Your task to perform on an android device: Set the phone to "Do not disturb". Image 0: 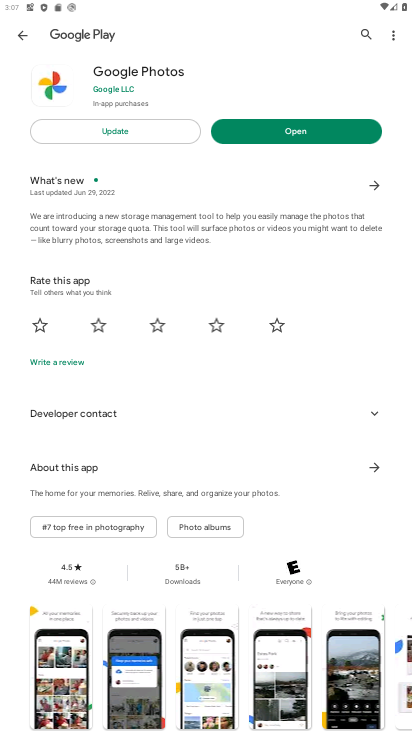
Step 0: press home button
Your task to perform on an android device: Set the phone to "Do not disturb". Image 1: 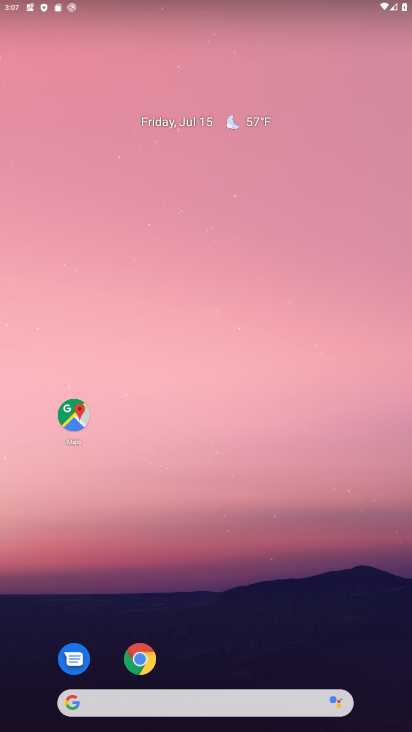
Step 1: drag from (214, 635) to (230, 0)
Your task to perform on an android device: Set the phone to "Do not disturb". Image 2: 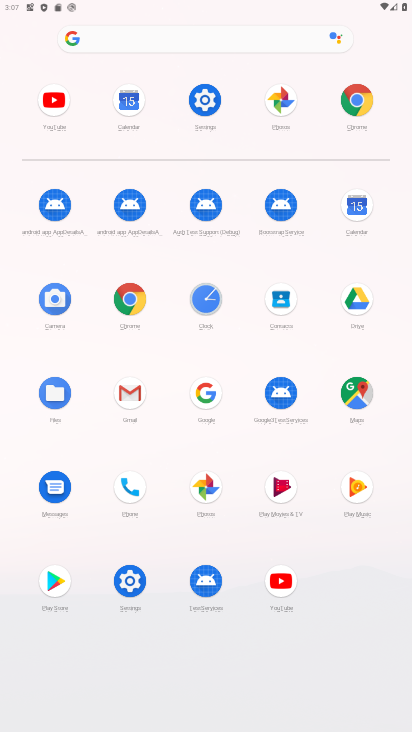
Step 2: click (132, 593)
Your task to perform on an android device: Set the phone to "Do not disturb". Image 3: 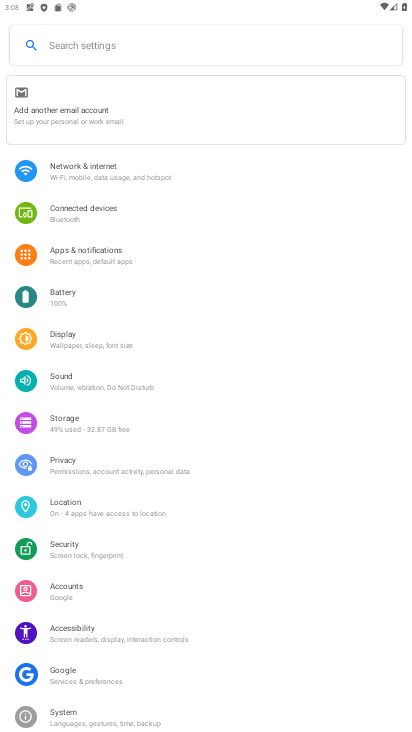
Step 3: drag from (107, 681) to (127, 543)
Your task to perform on an android device: Set the phone to "Do not disturb". Image 4: 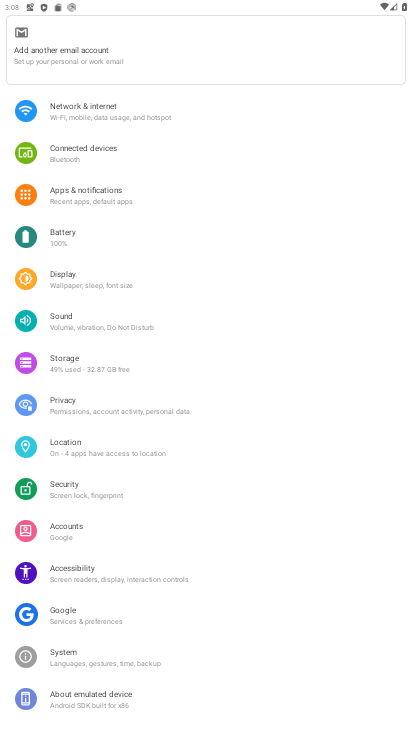
Step 4: click (74, 320)
Your task to perform on an android device: Set the phone to "Do not disturb". Image 5: 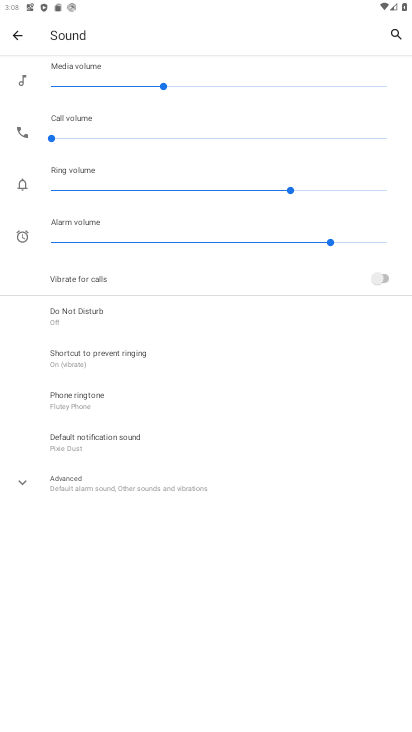
Step 5: click (101, 319)
Your task to perform on an android device: Set the phone to "Do not disturb". Image 6: 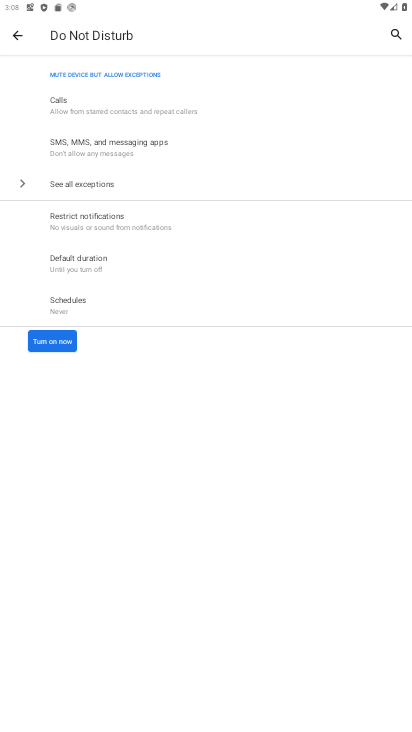
Step 6: click (37, 345)
Your task to perform on an android device: Set the phone to "Do not disturb". Image 7: 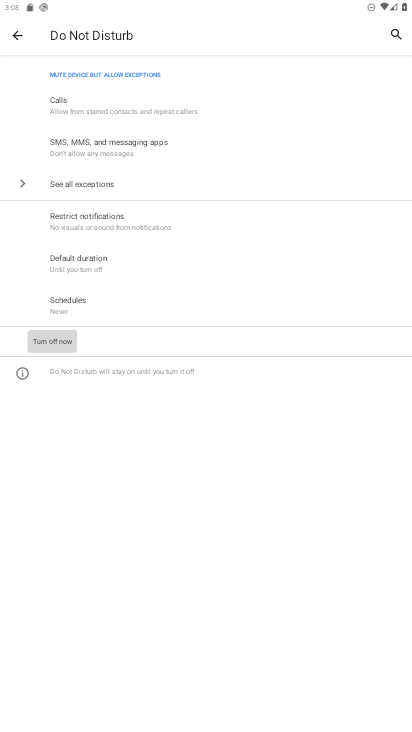
Step 7: task complete